Your task to perform on an android device: turn off notifications in google photos Image 0: 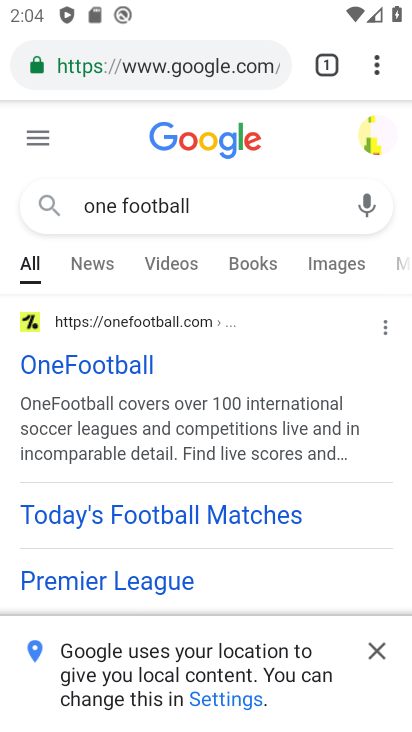
Step 0: press home button
Your task to perform on an android device: turn off notifications in google photos Image 1: 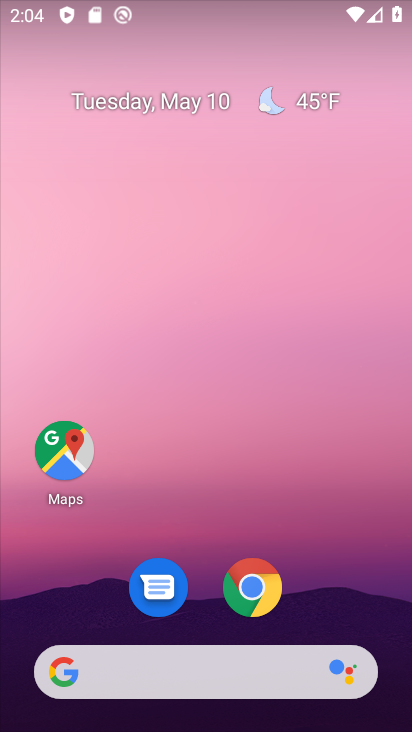
Step 1: drag from (330, 576) to (331, 223)
Your task to perform on an android device: turn off notifications in google photos Image 2: 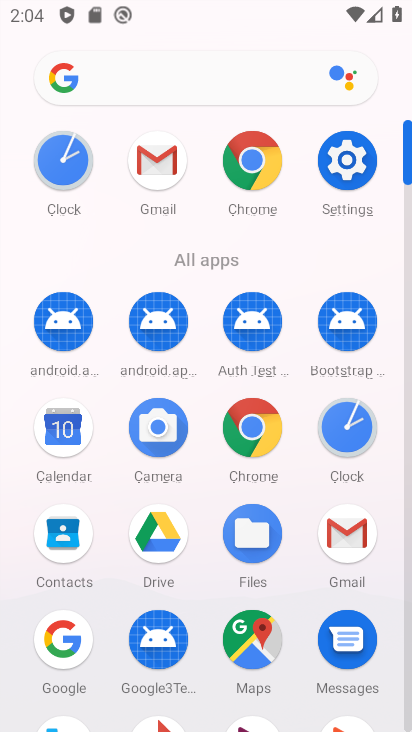
Step 2: drag from (252, 623) to (274, 219)
Your task to perform on an android device: turn off notifications in google photos Image 3: 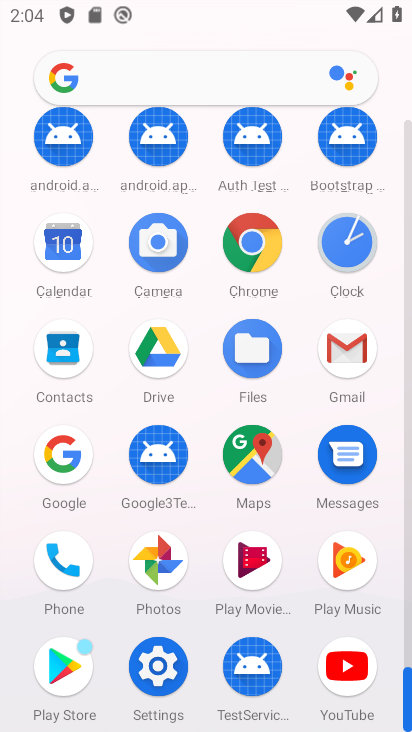
Step 3: click (169, 578)
Your task to perform on an android device: turn off notifications in google photos Image 4: 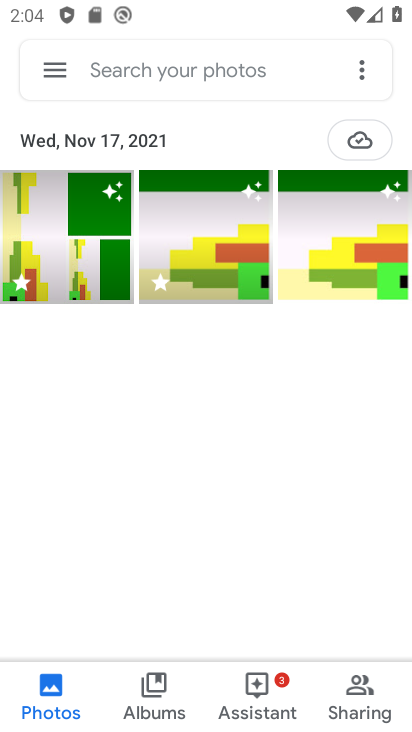
Step 4: click (52, 70)
Your task to perform on an android device: turn off notifications in google photos Image 5: 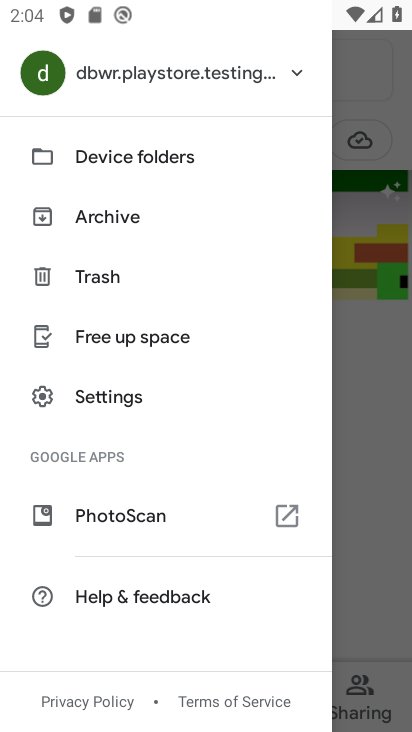
Step 5: click (125, 391)
Your task to perform on an android device: turn off notifications in google photos Image 6: 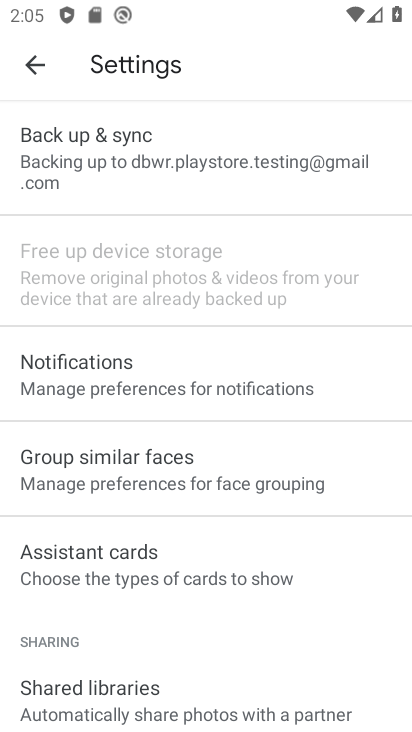
Step 6: click (191, 375)
Your task to perform on an android device: turn off notifications in google photos Image 7: 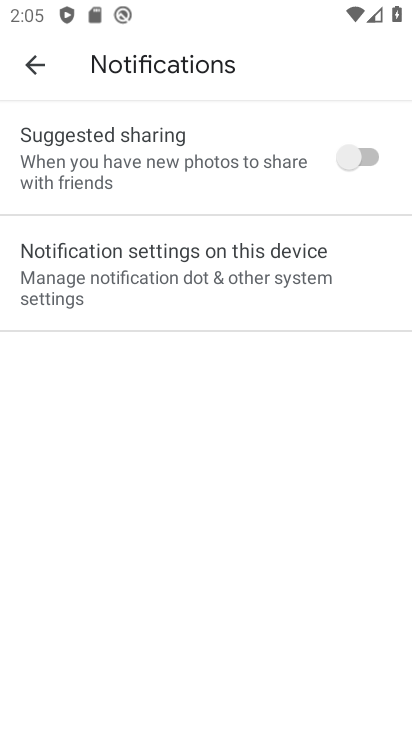
Step 7: click (91, 303)
Your task to perform on an android device: turn off notifications in google photos Image 8: 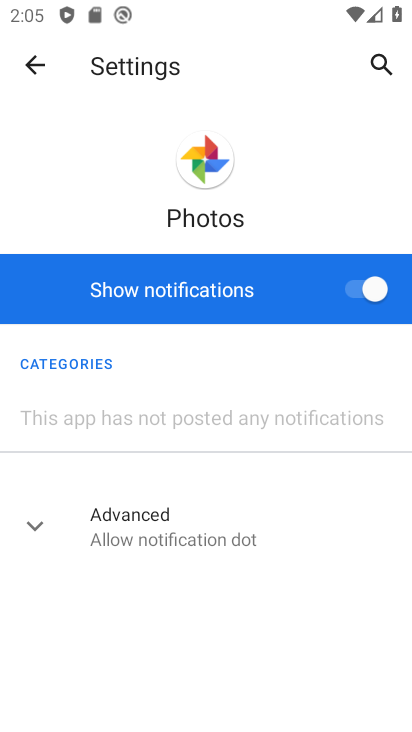
Step 8: click (360, 287)
Your task to perform on an android device: turn off notifications in google photos Image 9: 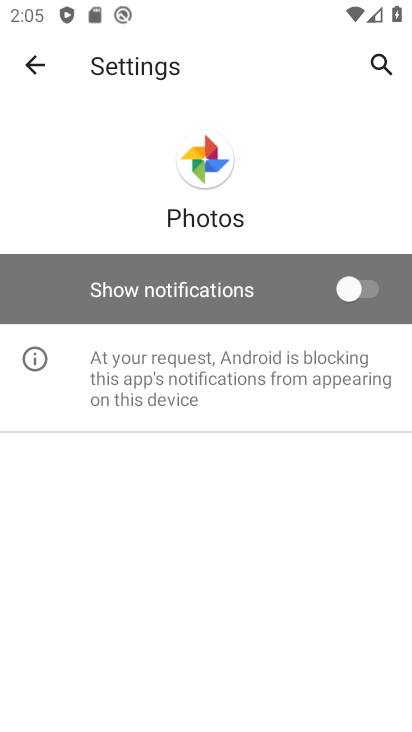
Step 9: task complete